Your task to perform on an android device: toggle airplane mode Image 0: 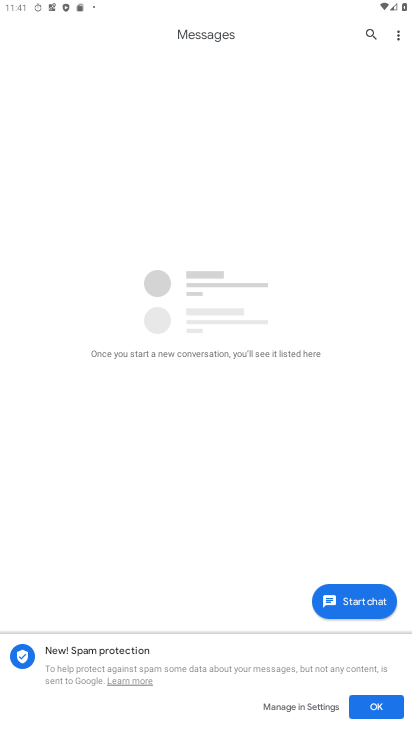
Step 0: press home button
Your task to perform on an android device: toggle airplane mode Image 1: 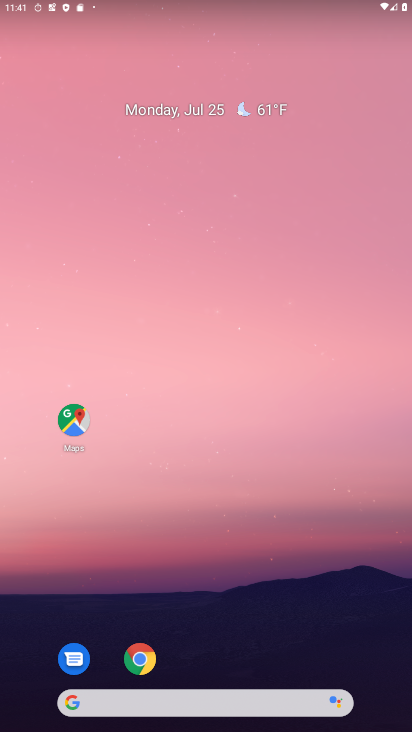
Step 1: drag from (29, 692) to (186, 202)
Your task to perform on an android device: toggle airplane mode Image 2: 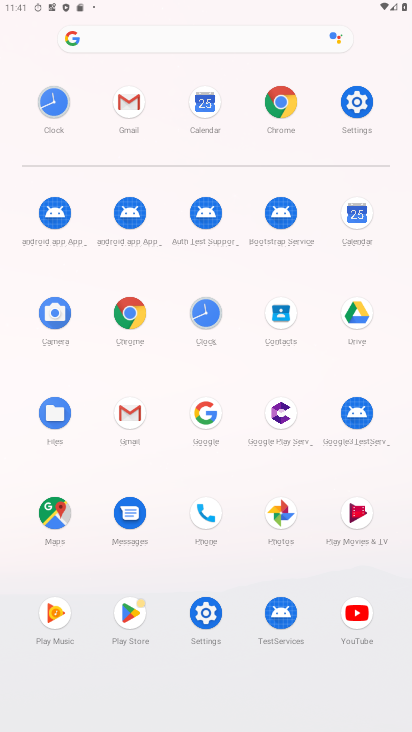
Step 2: click (199, 609)
Your task to perform on an android device: toggle airplane mode Image 3: 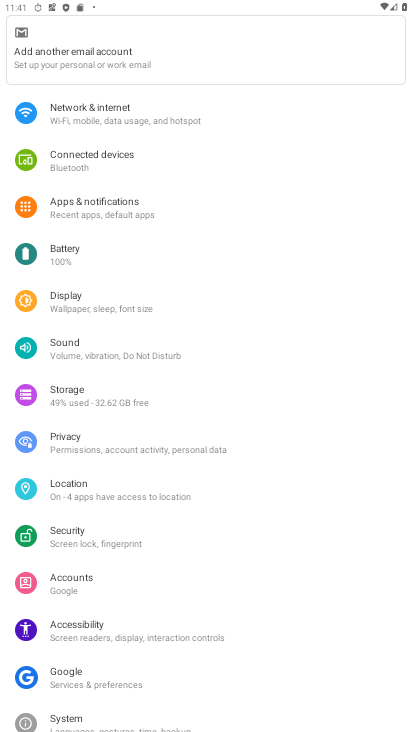
Step 3: click (154, 113)
Your task to perform on an android device: toggle airplane mode Image 4: 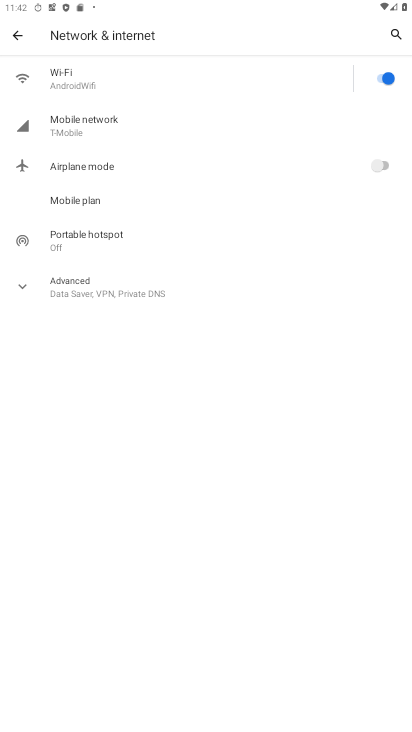
Step 4: task complete